Your task to perform on an android device: turn vacation reply on in the gmail app Image 0: 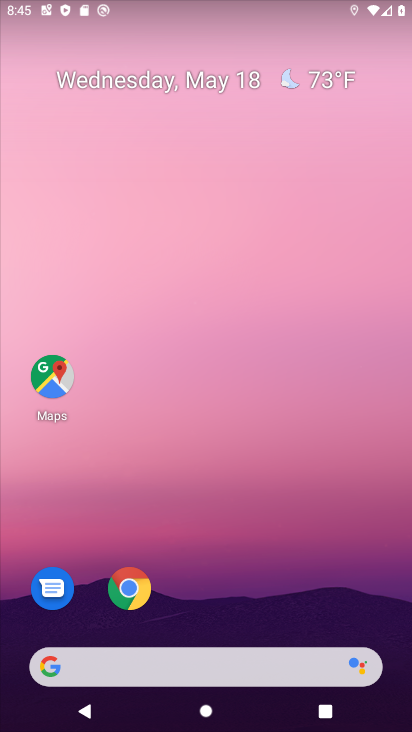
Step 0: drag from (333, 571) to (263, 155)
Your task to perform on an android device: turn vacation reply on in the gmail app Image 1: 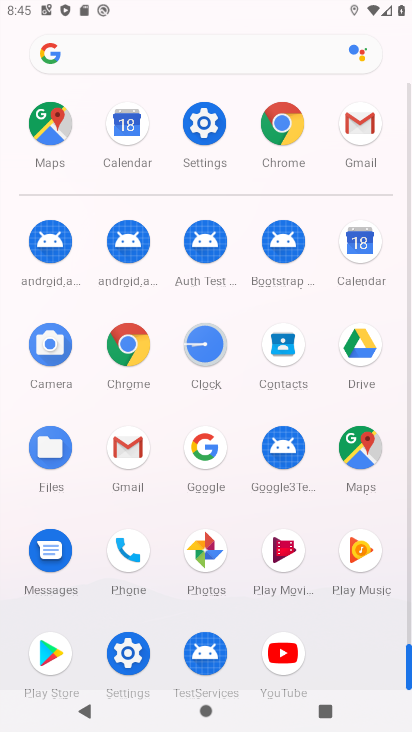
Step 1: click (139, 463)
Your task to perform on an android device: turn vacation reply on in the gmail app Image 2: 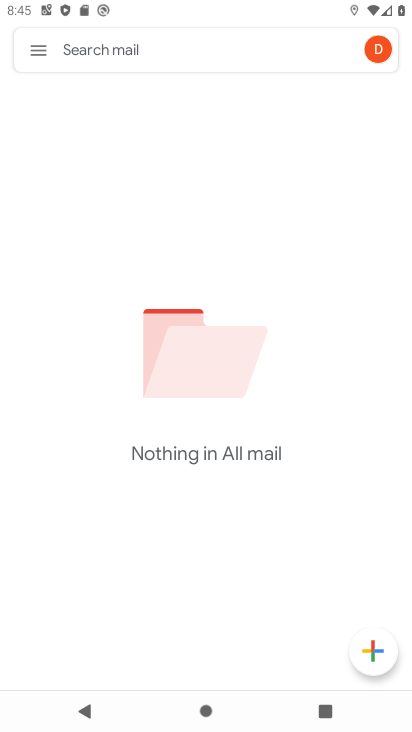
Step 2: click (40, 54)
Your task to perform on an android device: turn vacation reply on in the gmail app Image 3: 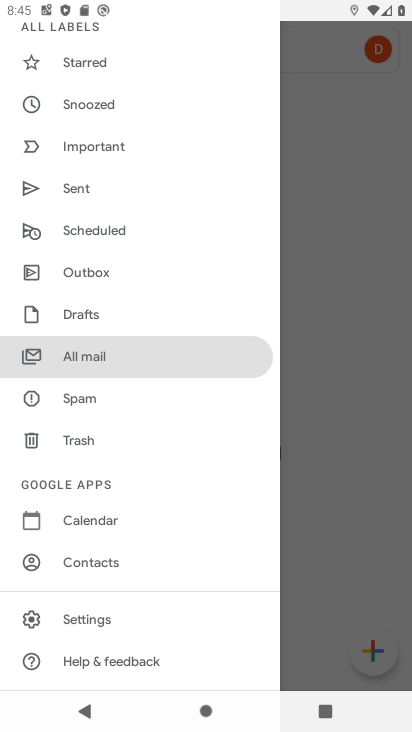
Step 3: drag from (174, 600) to (198, 248)
Your task to perform on an android device: turn vacation reply on in the gmail app Image 4: 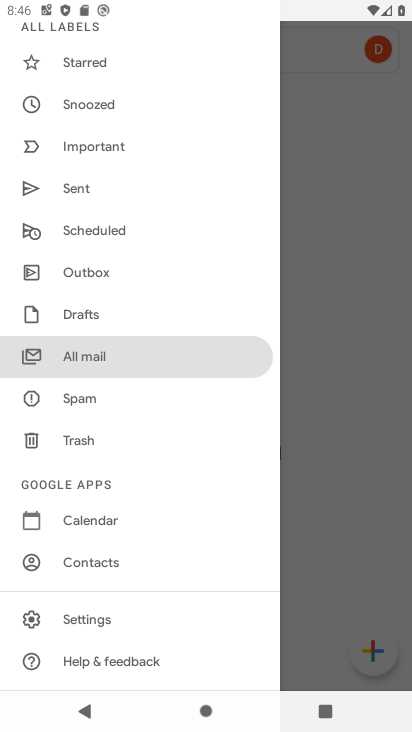
Step 4: click (107, 615)
Your task to perform on an android device: turn vacation reply on in the gmail app Image 5: 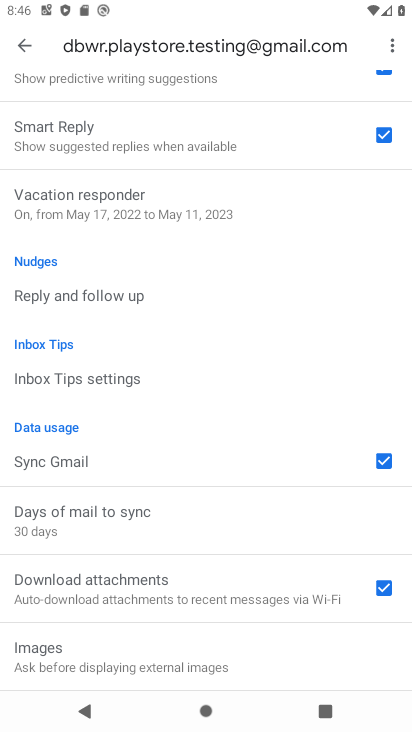
Step 5: click (172, 200)
Your task to perform on an android device: turn vacation reply on in the gmail app Image 6: 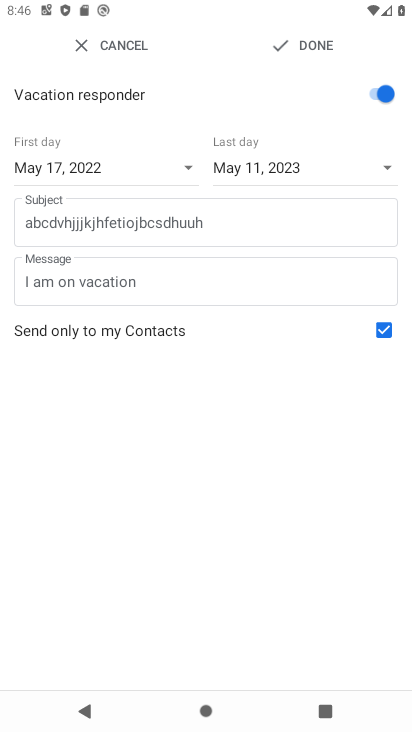
Step 6: task complete